Your task to perform on an android device: open app "Adobe Acrobat Reader: Edit PDF" Image 0: 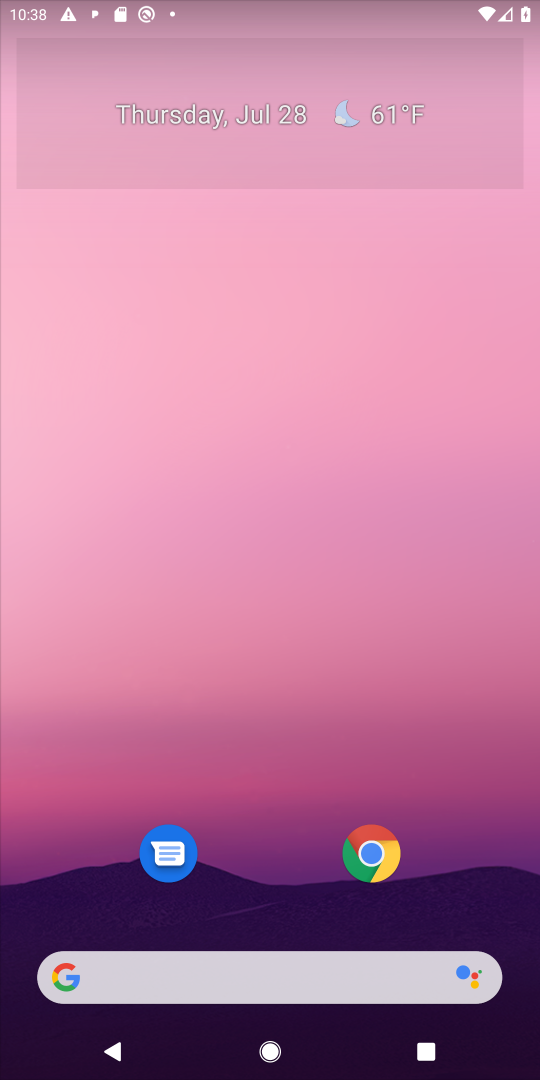
Step 0: drag from (220, 966) to (337, 149)
Your task to perform on an android device: open app "Adobe Acrobat Reader: Edit PDF" Image 1: 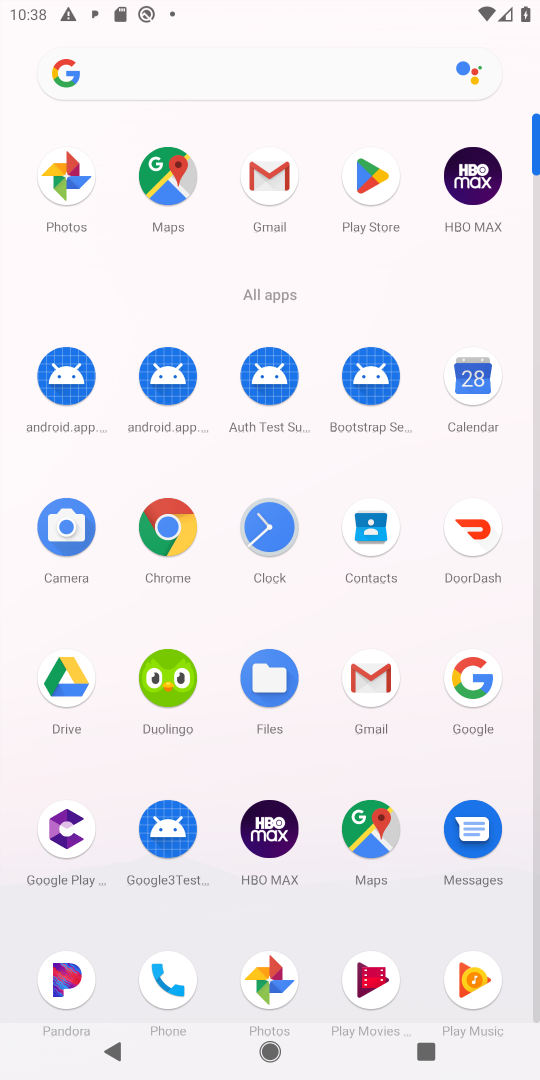
Step 1: click (364, 177)
Your task to perform on an android device: open app "Adobe Acrobat Reader: Edit PDF" Image 2: 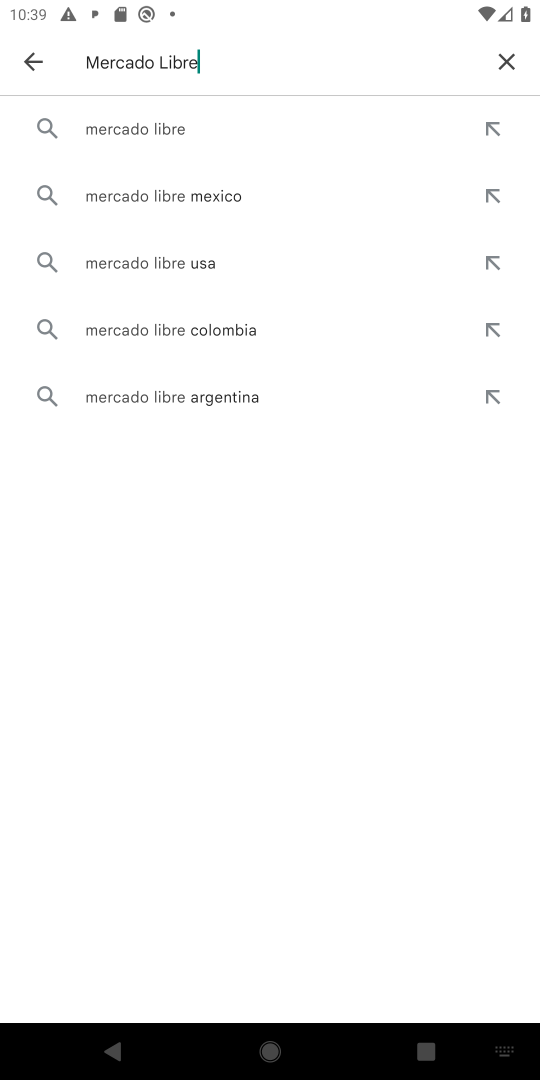
Step 2: click (499, 57)
Your task to perform on an android device: open app "Adobe Acrobat Reader: Edit PDF" Image 3: 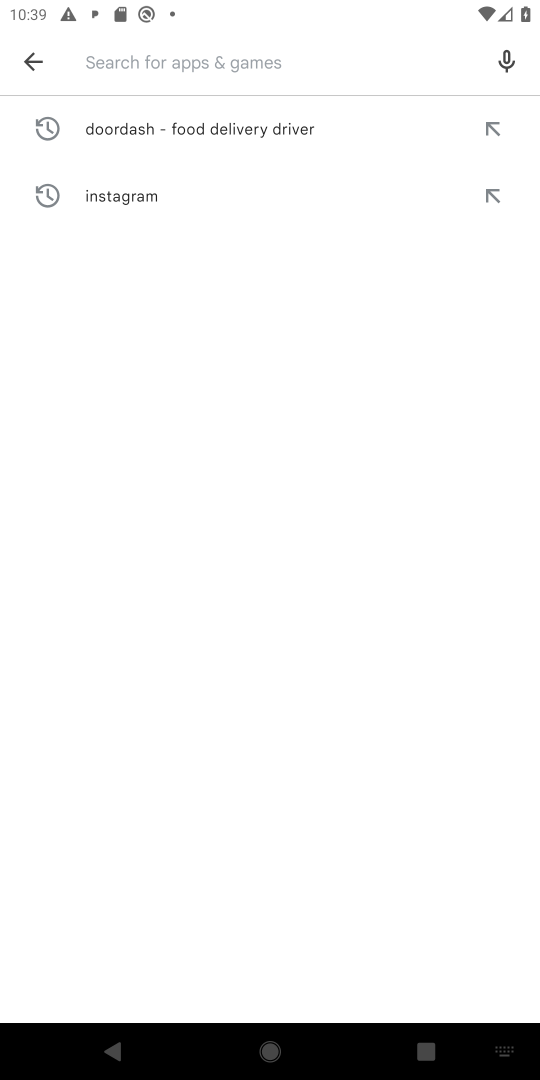
Step 3: type "Adobe Acrobat Reader: Edit PDF"
Your task to perform on an android device: open app "Adobe Acrobat Reader: Edit PDF" Image 4: 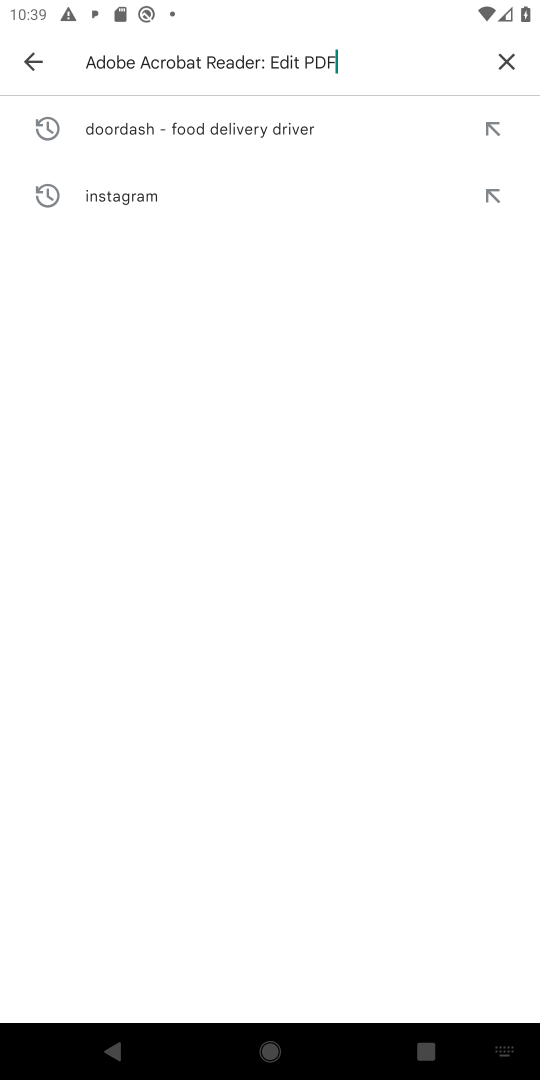
Step 4: type ""
Your task to perform on an android device: open app "Adobe Acrobat Reader: Edit PDF" Image 5: 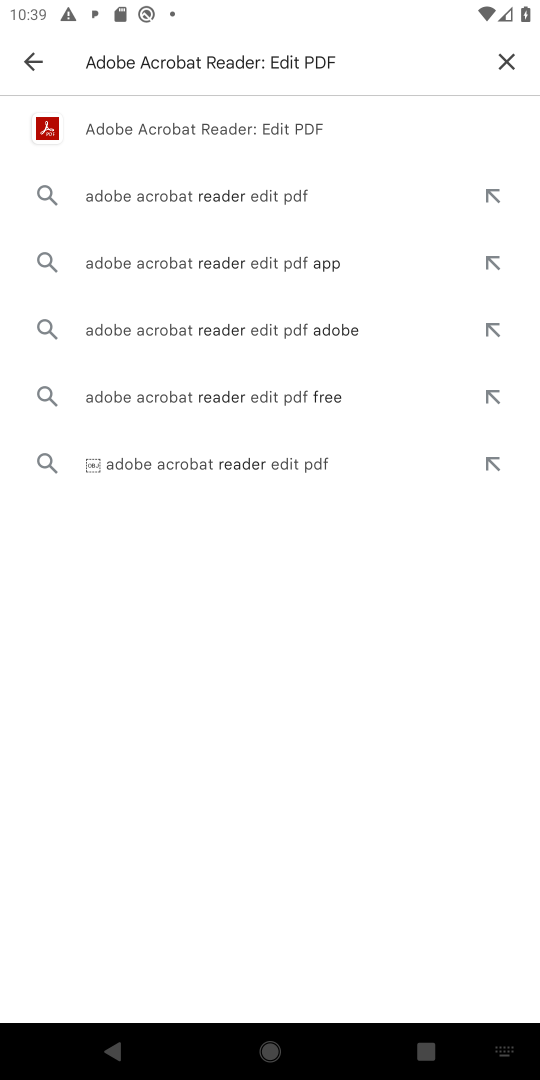
Step 5: click (87, 121)
Your task to perform on an android device: open app "Adobe Acrobat Reader: Edit PDF" Image 6: 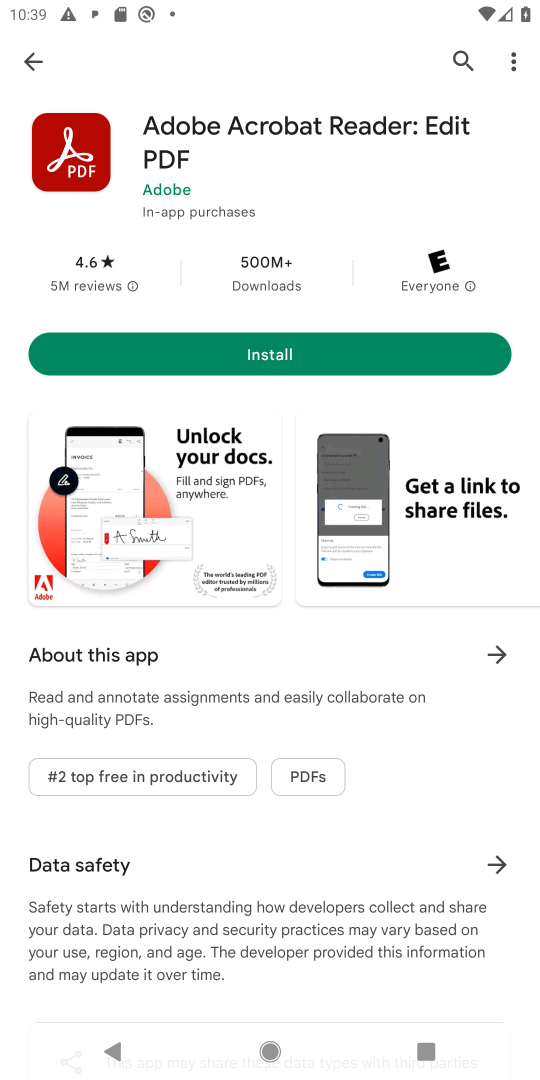
Step 6: task complete